Your task to perform on an android device: check data usage Image 0: 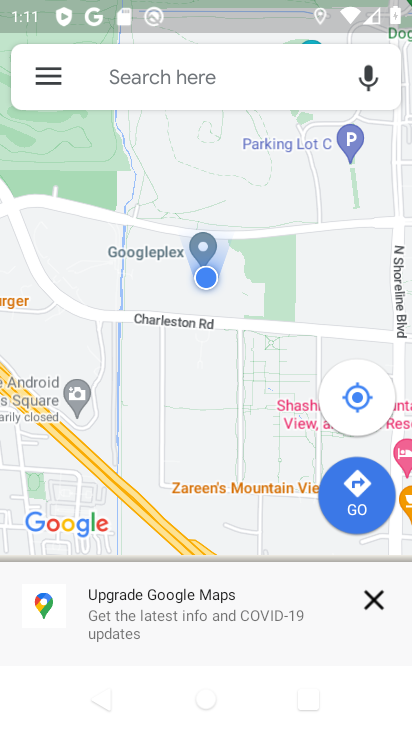
Step 0: press home button
Your task to perform on an android device: check data usage Image 1: 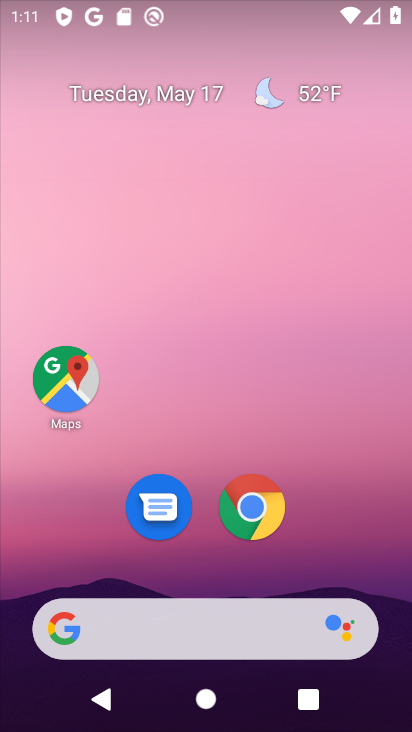
Step 1: drag from (210, 549) to (215, 127)
Your task to perform on an android device: check data usage Image 2: 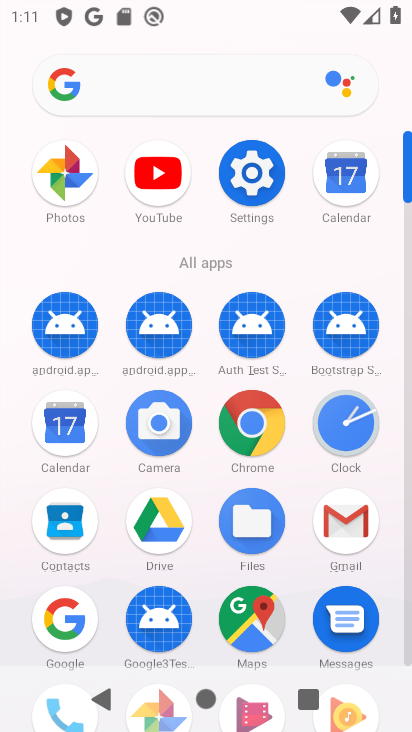
Step 2: click (247, 174)
Your task to perform on an android device: check data usage Image 3: 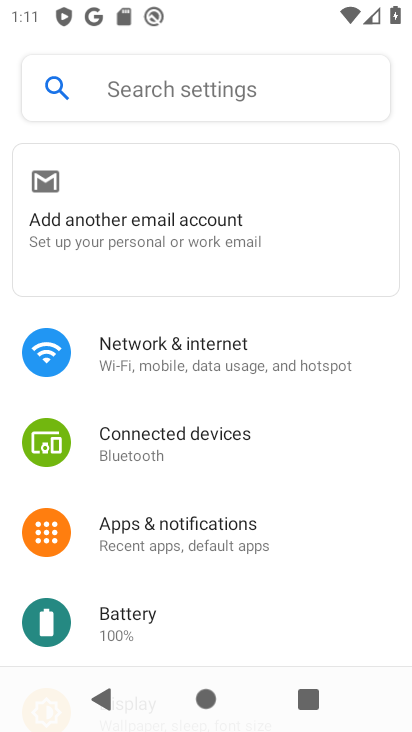
Step 3: drag from (219, 591) to (268, 472)
Your task to perform on an android device: check data usage Image 4: 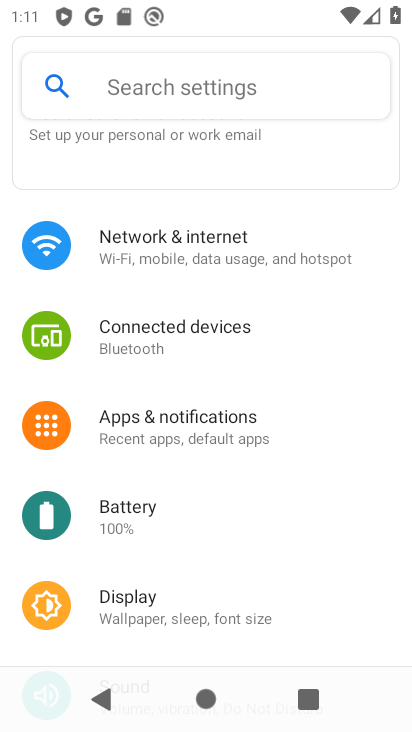
Step 4: click (170, 236)
Your task to perform on an android device: check data usage Image 5: 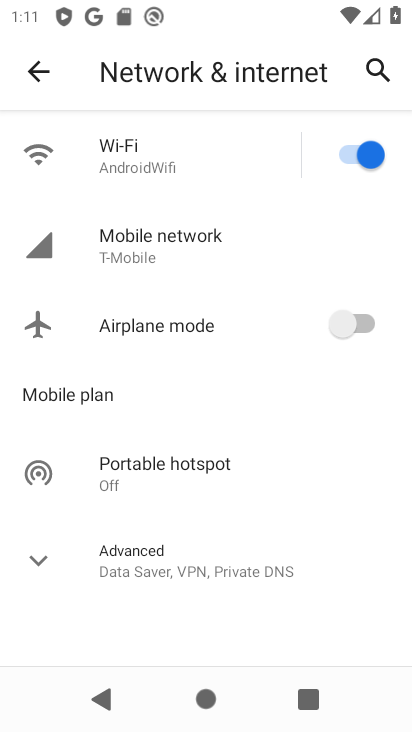
Step 5: click (164, 244)
Your task to perform on an android device: check data usage Image 6: 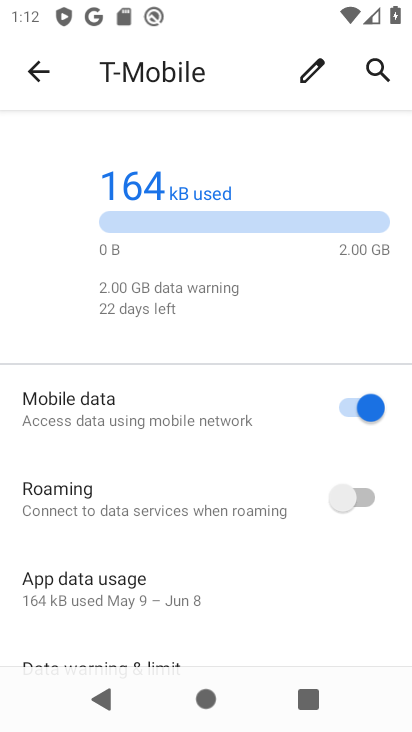
Step 6: task complete